Your task to perform on an android device: When is my next appointment? Image 0: 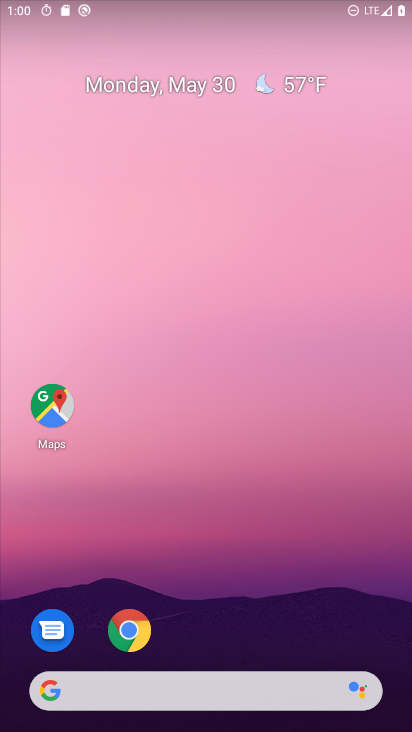
Step 0: press home button
Your task to perform on an android device: When is my next appointment? Image 1: 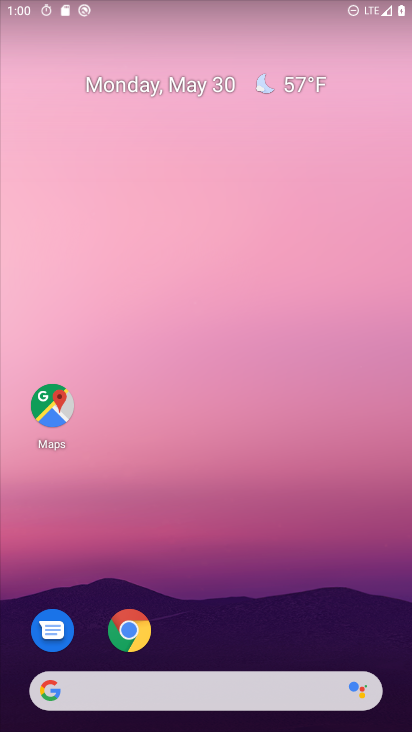
Step 1: drag from (247, 712) to (251, 85)
Your task to perform on an android device: When is my next appointment? Image 2: 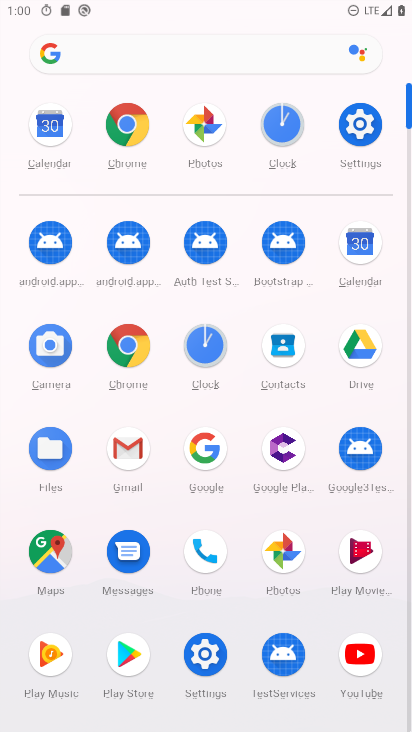
Step 2: click (69, 125)
Your task to perform on an android device: When is my next appointment? Image 3: 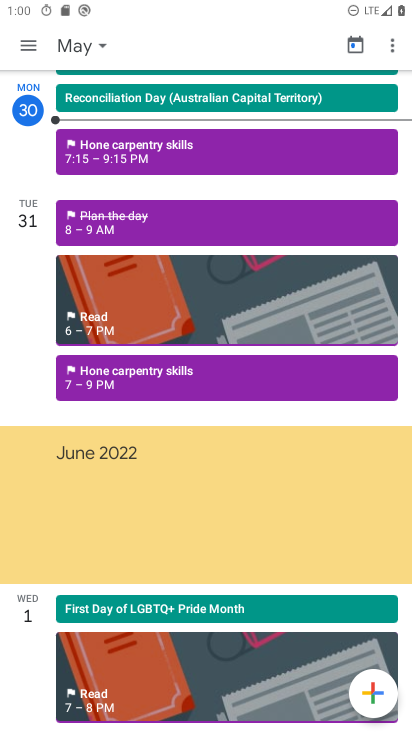
Step 3: click (33, 46)
Your task to perform on an android device: When is my next appointment? Image 4: 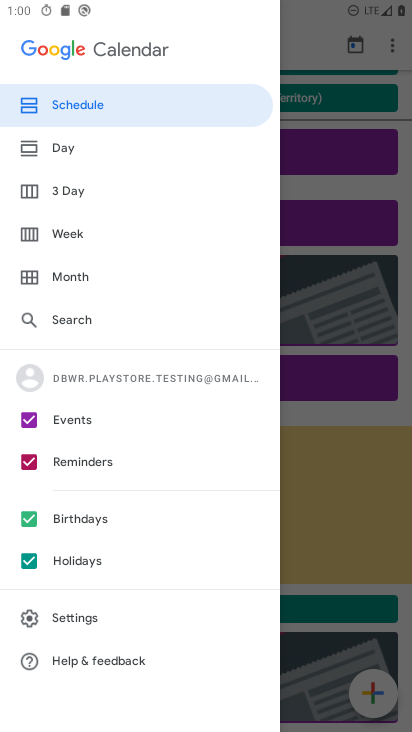
Step 4: click (77, 272)
Your task to perform on an android device: When is my next appointment? Image 5: 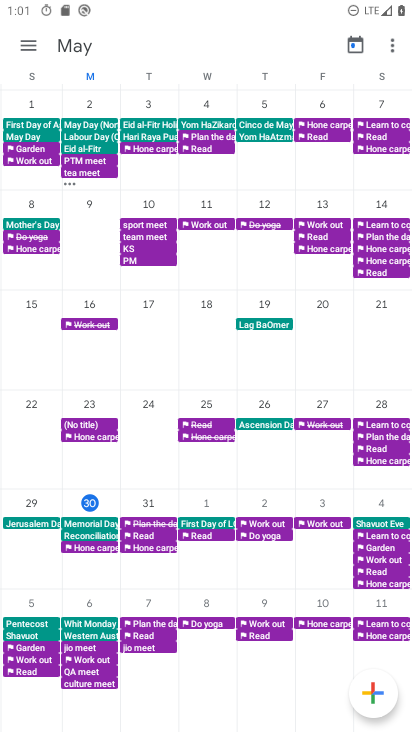
Step 5: click (23, 51)
Your task to perform on an android device: When is my next appointment? Image 6: 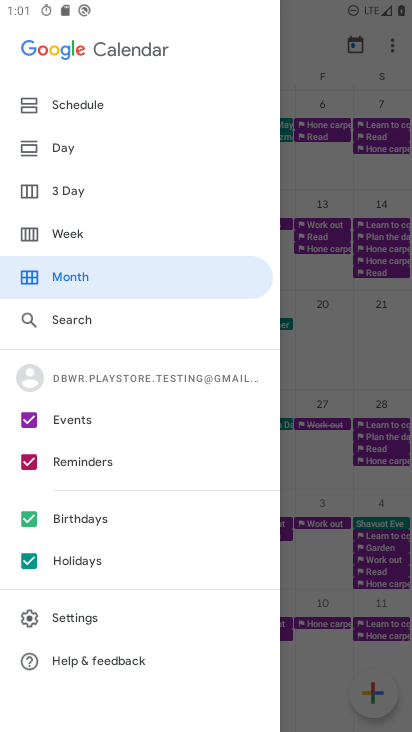
Step 6: click (75, 110)
Your task to perform on an android device: When is my next appointment? Image 7: 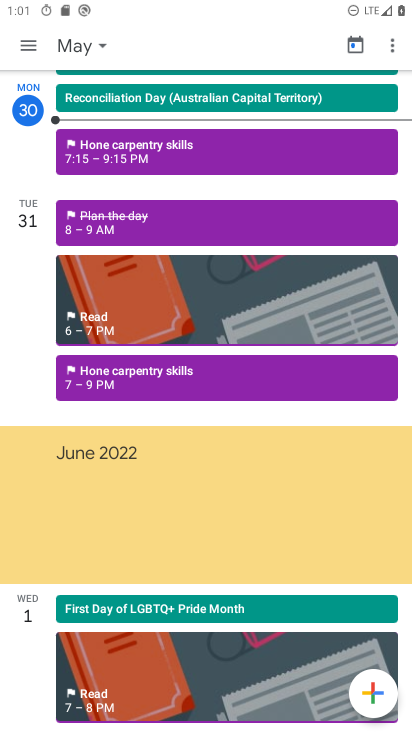
Step 7: task complete